Your task to perform on an android device: Open settings Image 0: 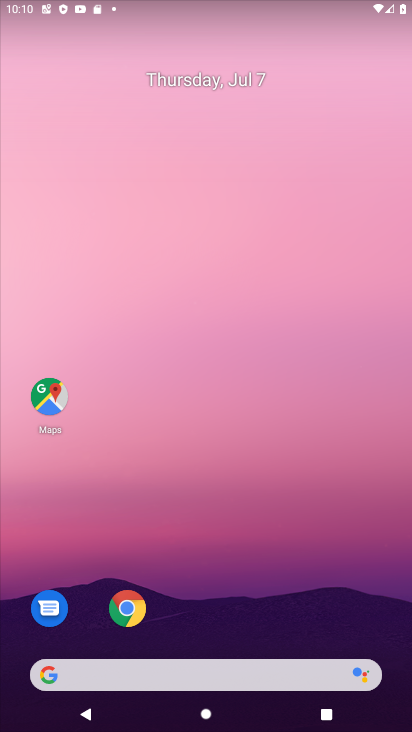
Step 0: drag from (266, 614) to (283, 105)
Your task to perform on an android device: Open settings Image 1: 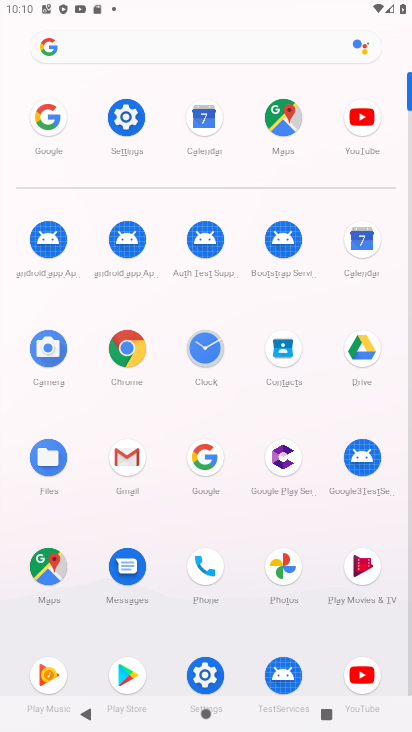
Step 1: click (126, 119)
Your task to perform on an android device: Open settings Image 2: 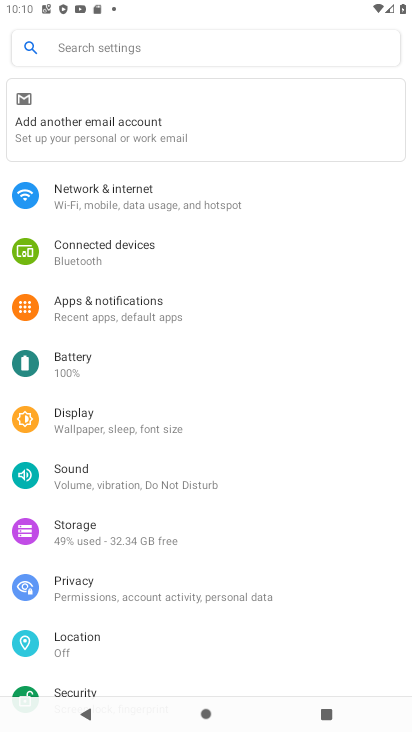
Step 2: task complete